Your task to perform on an android device: empty trash in google photos Image 0: 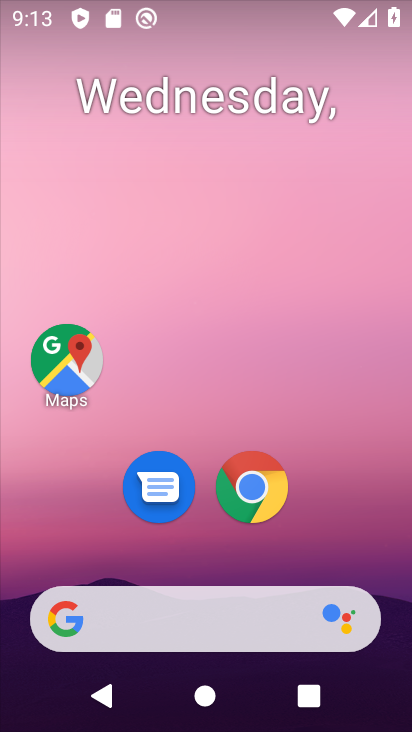
Step 0: drag from (221, 494) to (203, 240)
Your task to perform on an android device: empty trash in google photos Image 1: 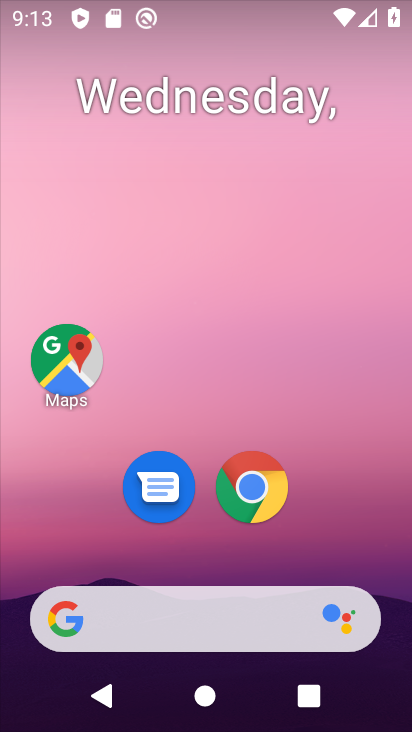
Step 1: drag from (193, 562) to (197, 147)
Your task to perform on an android device: empty trash in google photos Image 2: 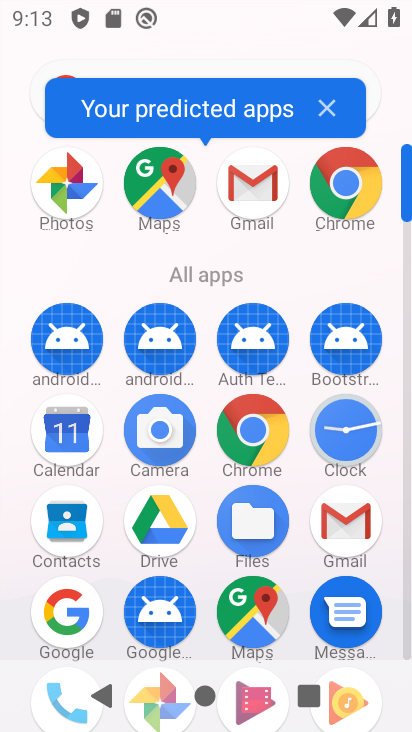
Step 2: click (85, 214)
Your task to perform on an android device: empty trash in google photos Image 3: 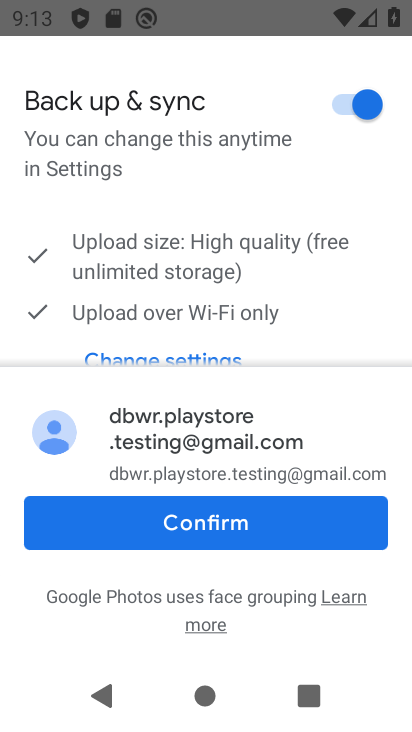
Step 3: click (249, 526)
Your task to perform on an android device: empty trash in google photos Image 4: 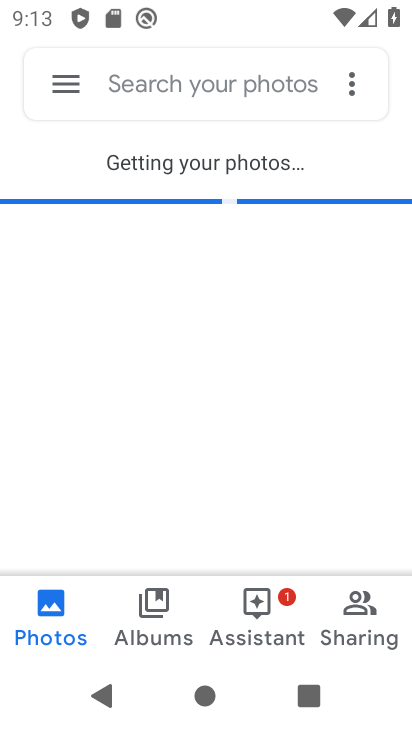
Step 4: click (66, 68)
Your task to perform on an android device: empty trash in google photos Image 5: 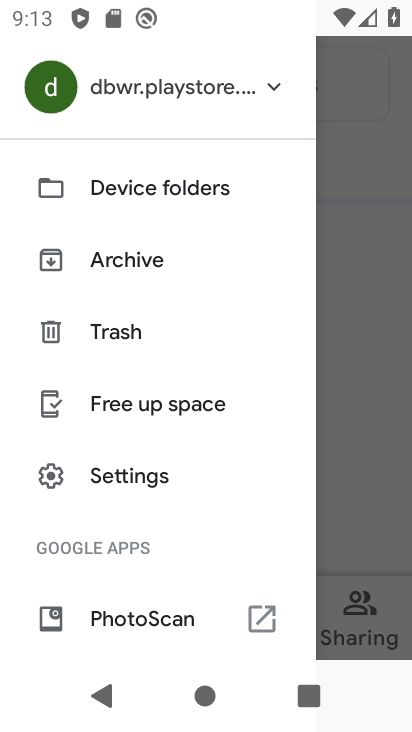
Step 5: click (113, 318)
Your task to perform on an android device: empty trash in google photos Image 6: 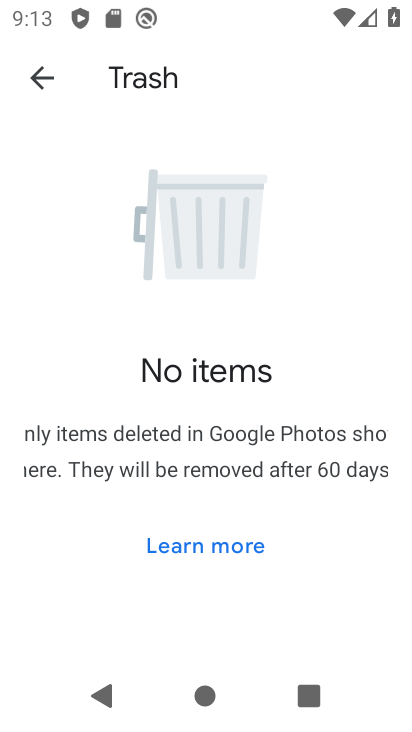
Step 6: task complete